Your task to perform on an android device: turn off smart reply in the gmail app Image 0: 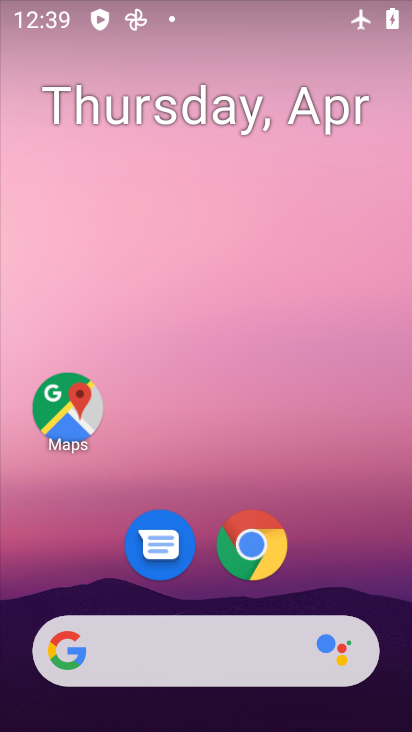
Step 0: drag from (310, 507) to (278, 61)
Your task to perform on an android device: turn off smart reply in the gmail app Image 1: 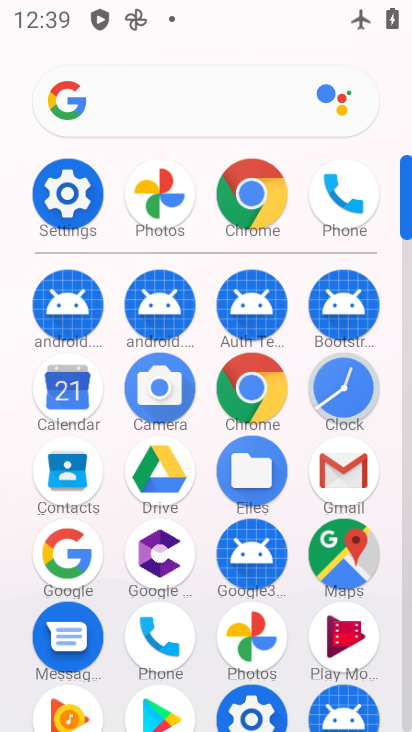
Step 1: click (331, 484)
Your task to perform on an android device: turn off smart reply in the gmail app Image 2: 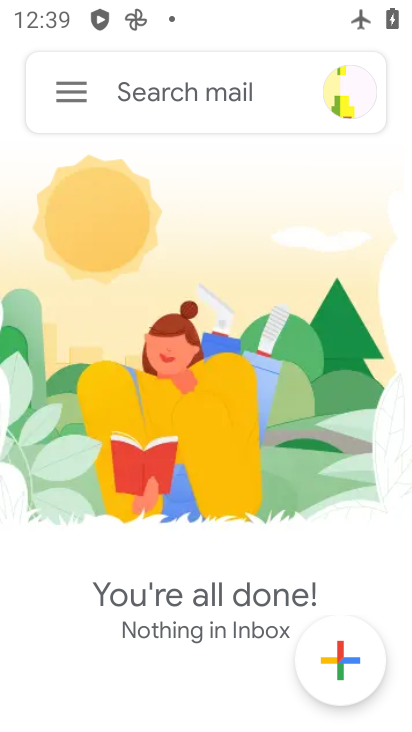
Step 2: click (64, 92)
Your task to perform on an android device: turn off smart reply in the gmail app Image 3: 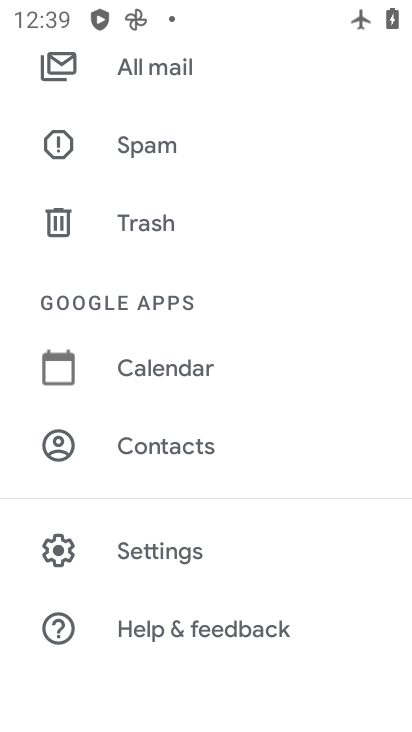
Step 3: click (194, 564)
Your task to perform on an android device: turn off smart reply in the gmail app Image 4: 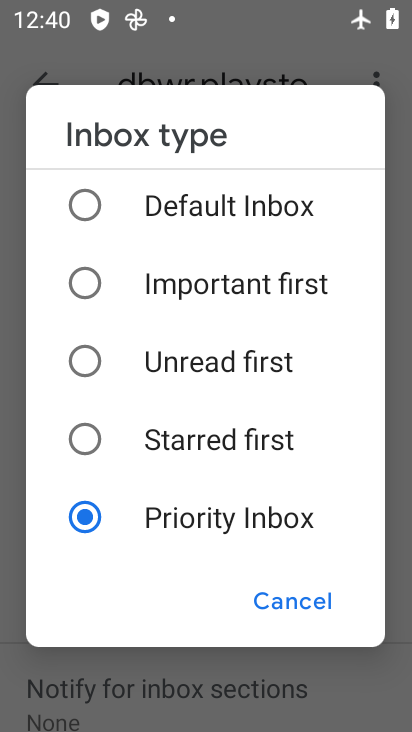
Step 4: click (279, 588)
Your task to perform on an android device: turn off smart reply in the gmail app Image 5: 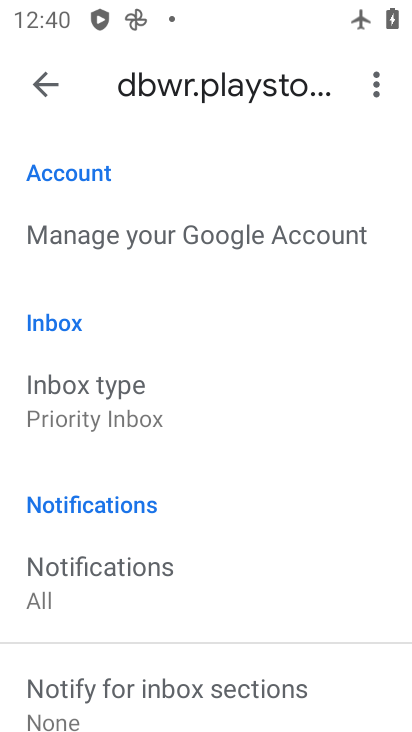
Step 5: drag from (260, 570) to (231, 29)
Your task to perform on an android device: turn off smart reply in the gmail app Image 6: 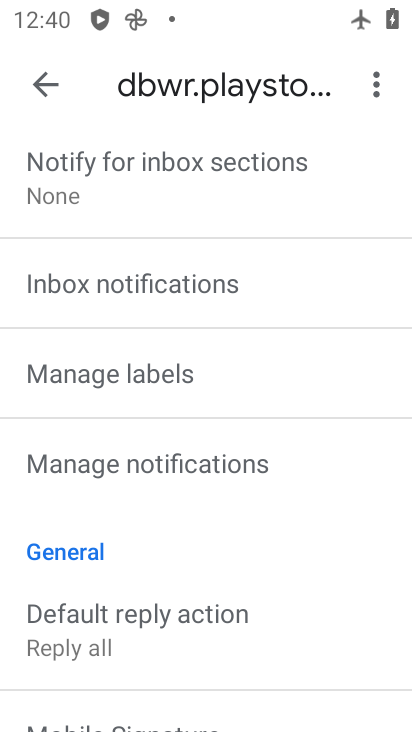
Step 6: drag from (250, 593) to (263, 176)
Your task to perform on an android device: turn off smart reply in the gmail app Image 7: 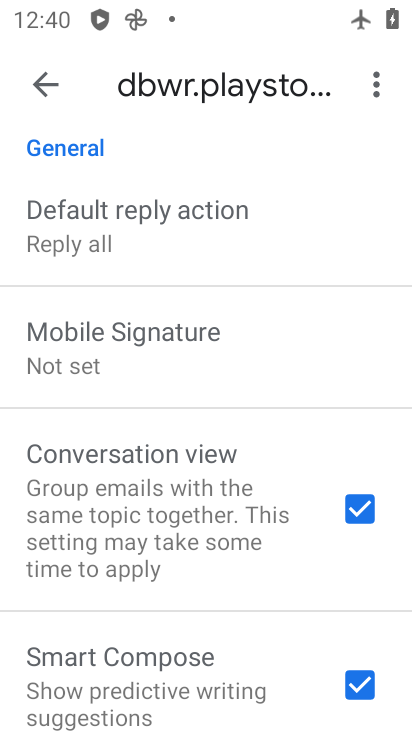
Step 7: drag from (229, 546) to (212, 288)
Your task to perform on an android device: turn off smart reply in the gmail app Image 8: 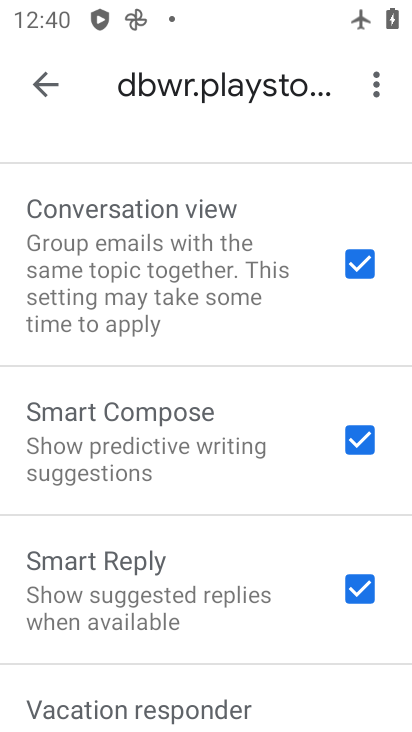
Step 8: click (351, 582)
Your task to perform on an android device: turn off smart reply in the gmail app Image 9: 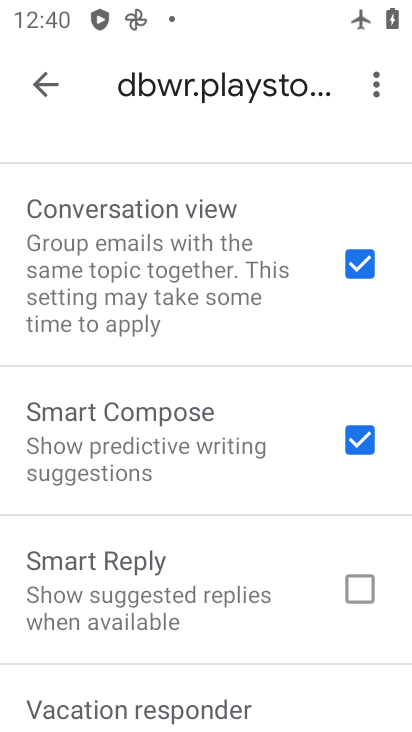
Step 9: task complete